Your task to perform on an android device: Turn on the flashlight Image 0: 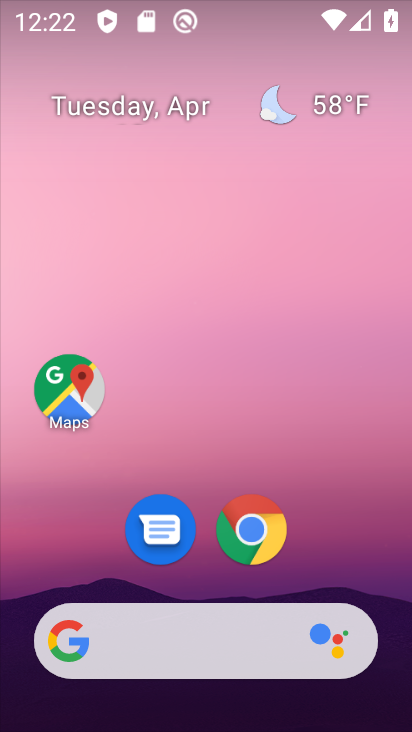
Step 0: drag from (364, 525) to (230, 8)
Your task to perform on an android device: Turn on the flashlight Image 1: 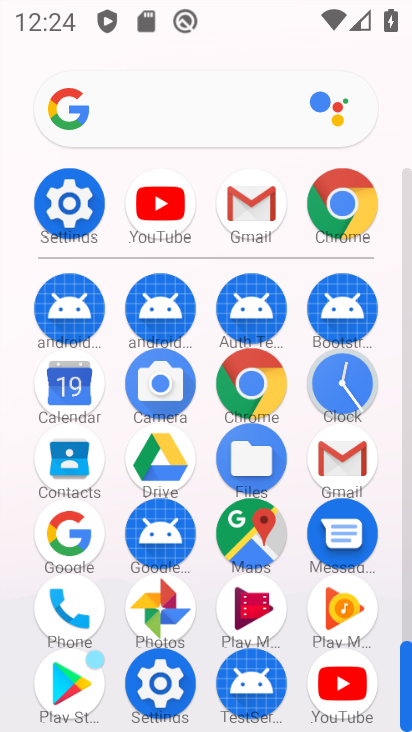
Step 1: click (80, 201)
Your task to perform on an android device: Turn on the flashlight Image 2: 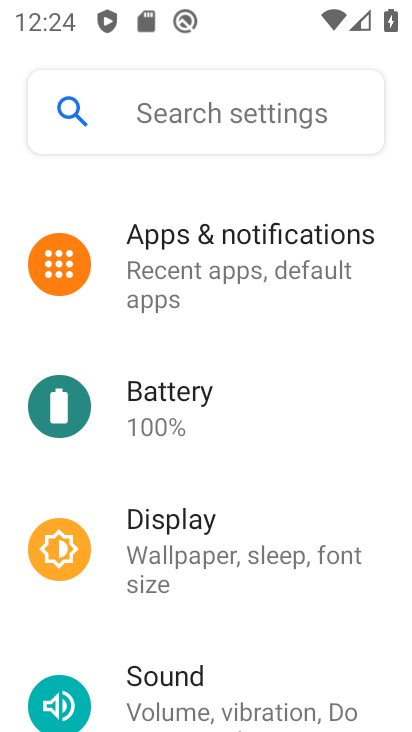
Step 2: task complete